Your task to perform on an android device: turn on improve location accuracy Image 0: 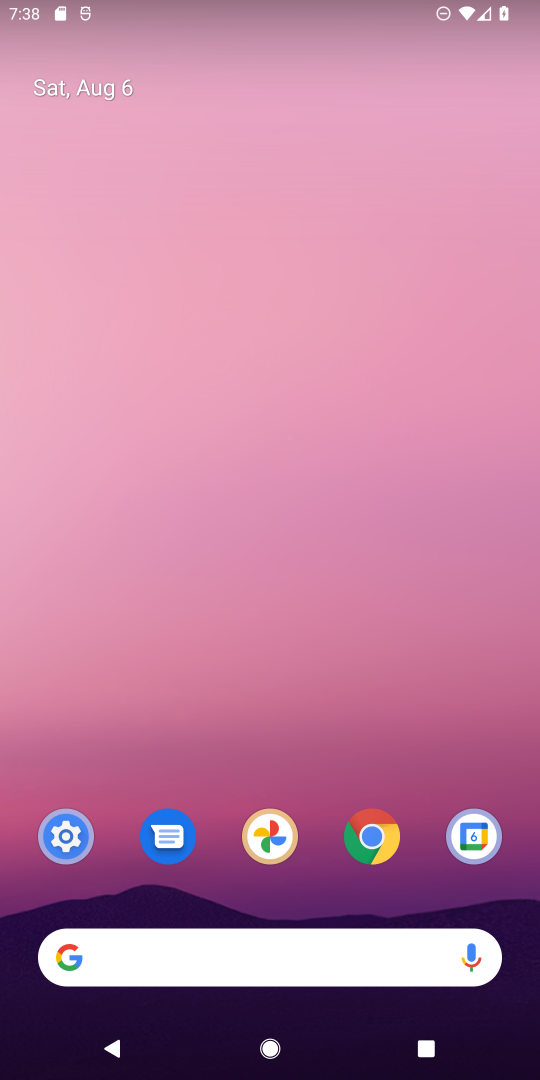
Step 0: drag from (202, 937) to (309, 143)
Your task to perform on an android device: turn on improve location accuracy Image 1: 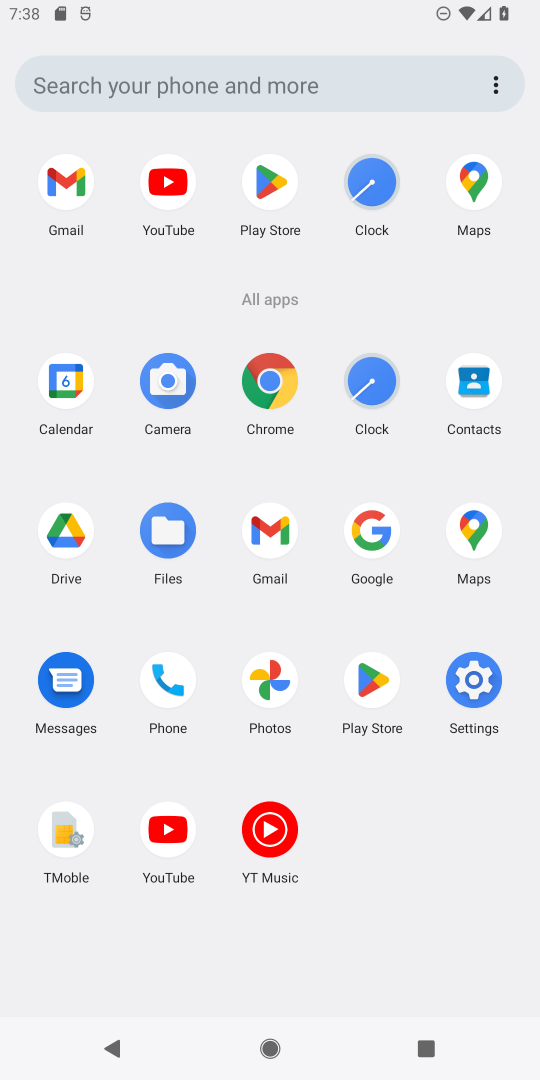
Step 1: click (481, 682)
Your task to perform on an android device: turn on improve location accuracy Image 2: 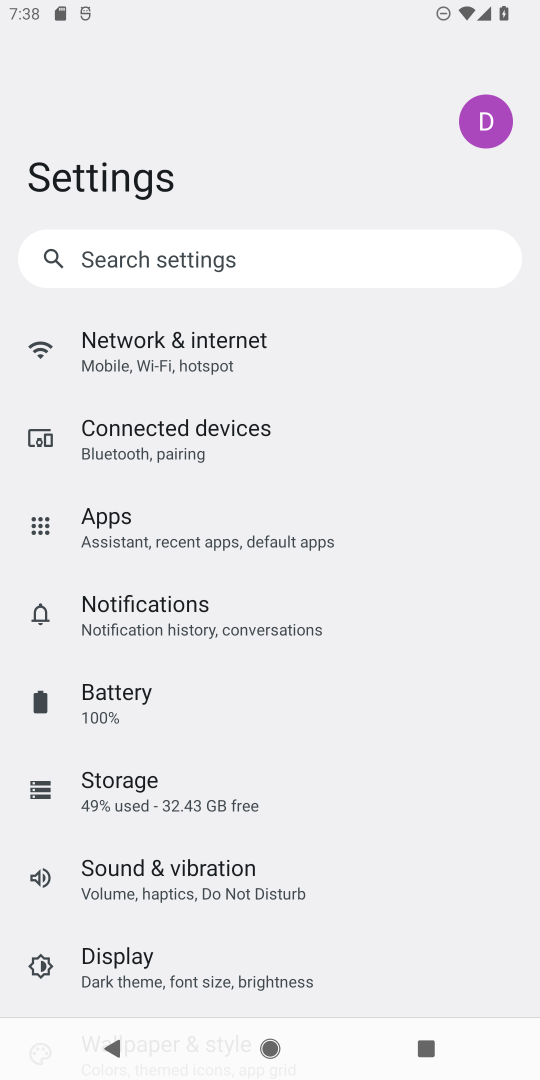
Step 2: drag from (141, 936) to (184, 477)
Your task to perform on an android device: turn on improve location accuracy Image 3: 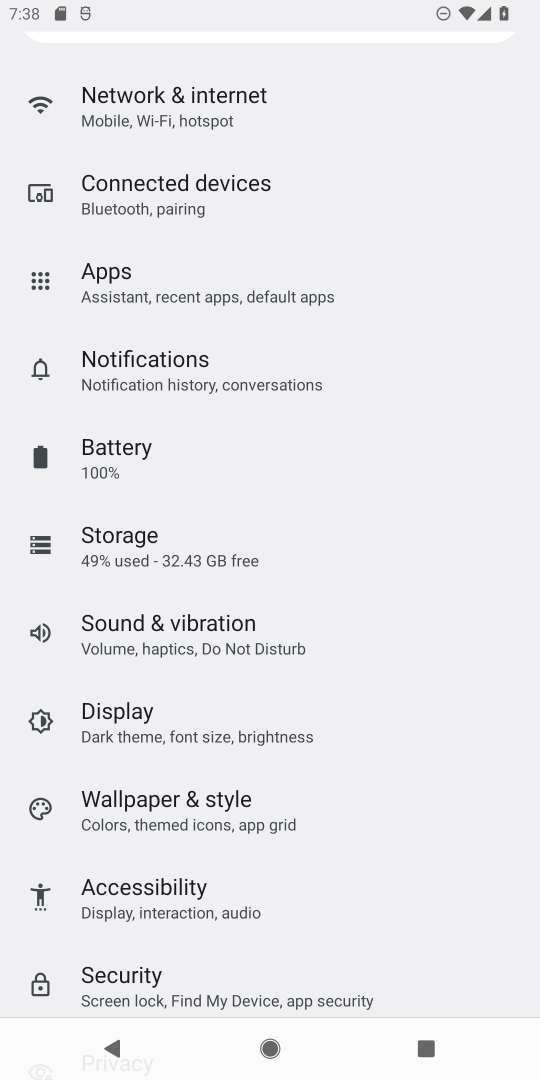
Step 3: drag from (154, 992) to (263, 417)
Your task to perform on an android device: turn on improve location accuracy Image 4: 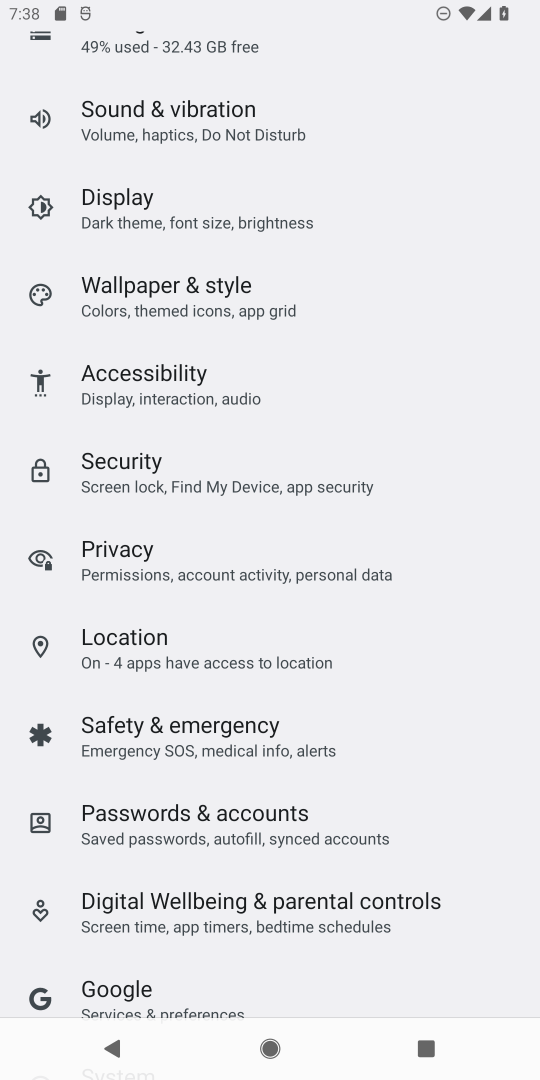
Step 4: click (120, 646)
Your task to perform on an android device: turn on improve location accuracy Image 5: 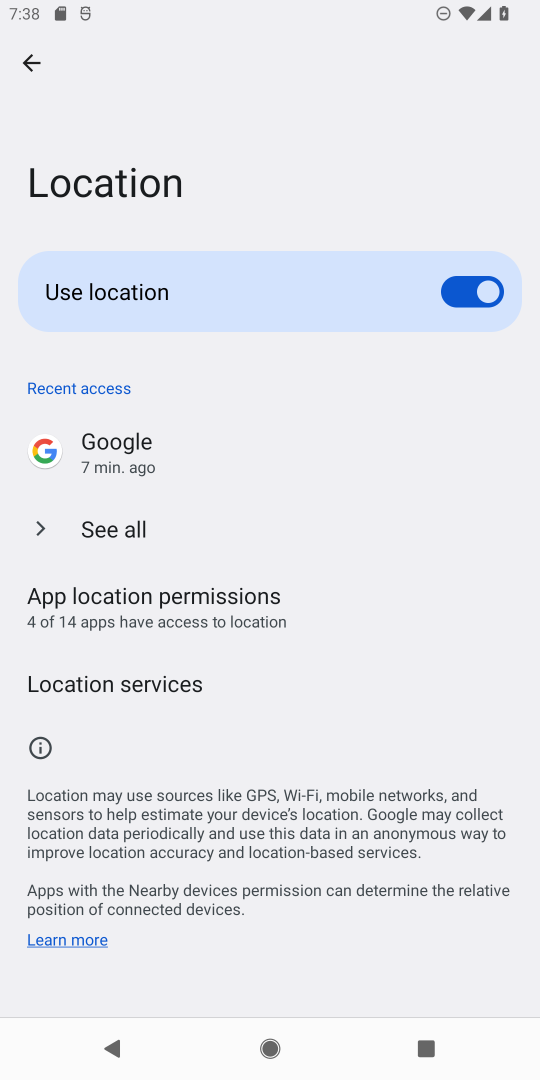
Step 5: drag from (215, 940) to (281, 476)
Your task to perform on an android device: turn on improve location accuracy Image 6: 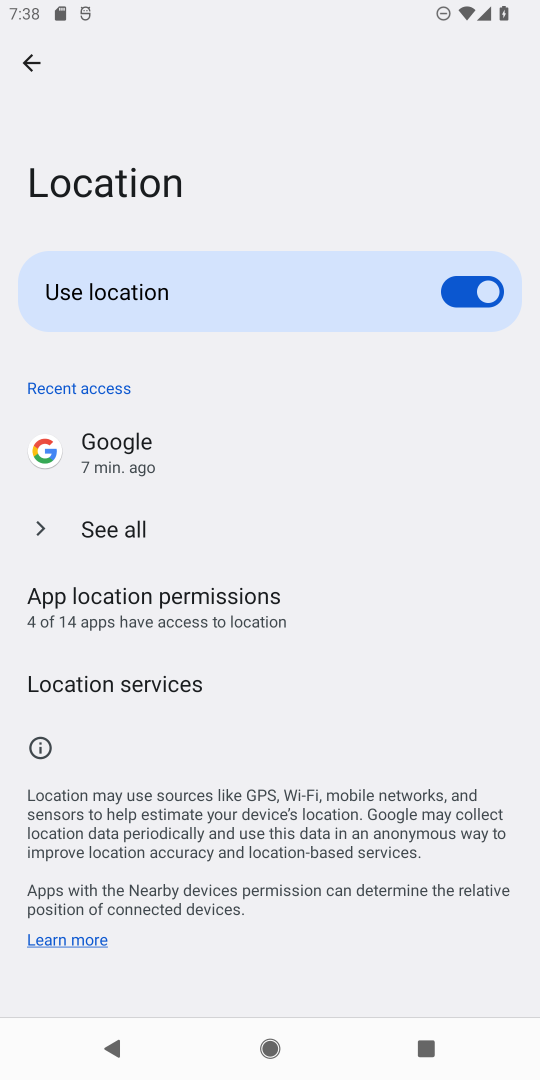
Step 6: click (140, 701)
Your task to perform on an android device: turn on improve location accuracy Image 7: 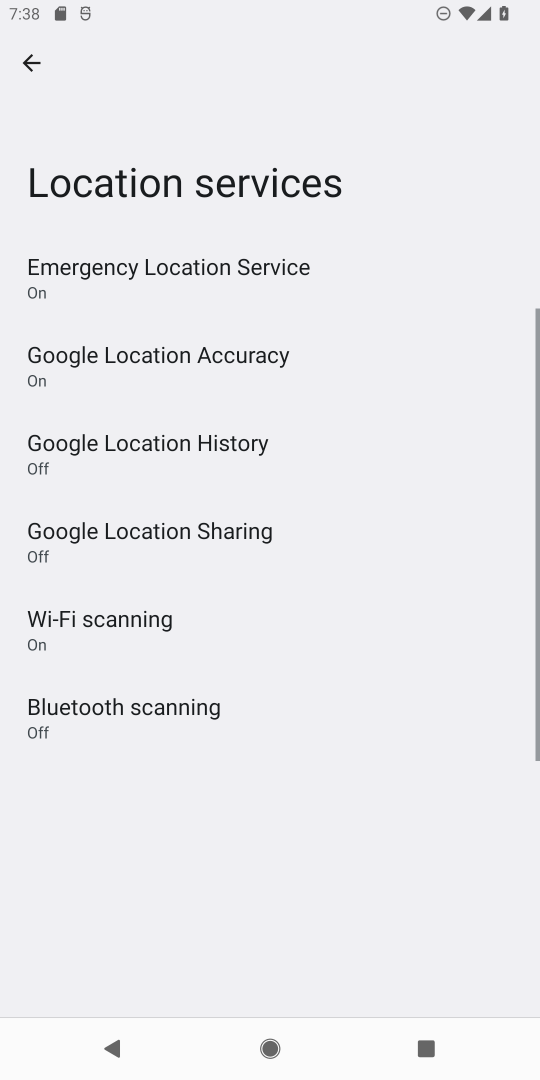
Step 7: click (216, 345)
Your task to perform on an android device: turn on improve location accuracy Image 8: 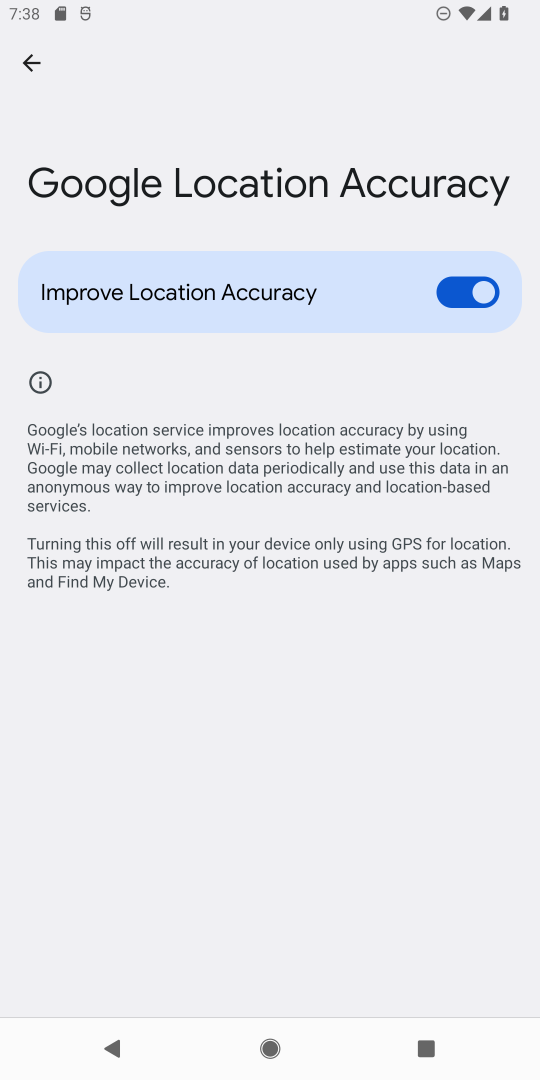
Step 8: task complete